Your task to perform on an android device: Go to accessibility settings Image 0: 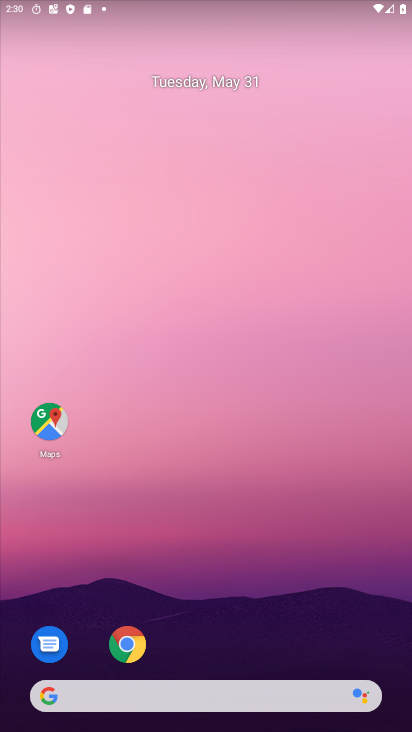
Step 0: click (136, 649)
Your task to perform on an android device: Go to accessibility settings Image 1: 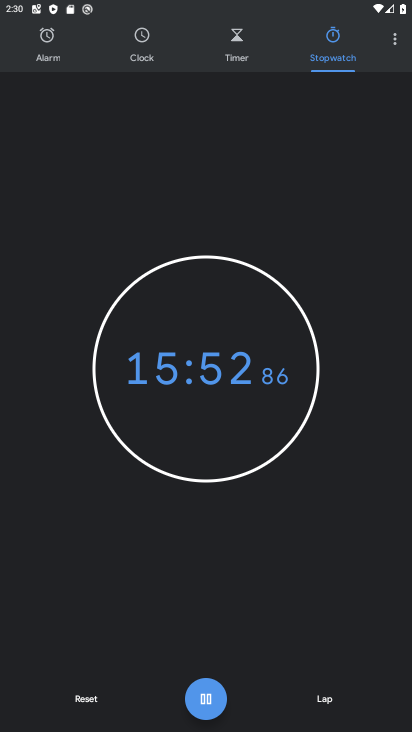
Step 1: press home button
Your task to perform on an android device: Go to accessibility settings Image 2: 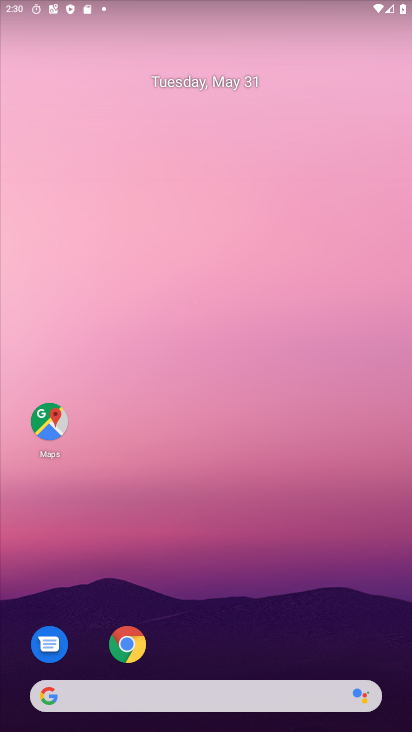
Step 2: drag from (394, 681) to (322, 129)
Your task to perform on an android device: Go to accessibility settings Image 3: 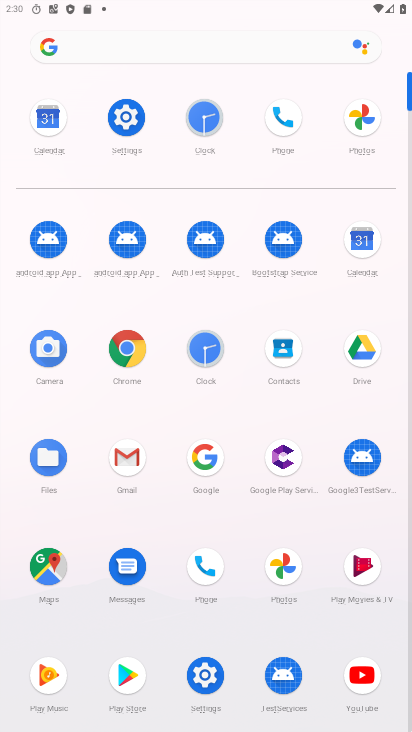
Step 3: click (115, 121)
Your task to perform on an android device: Go to accessibility settings Image 4: 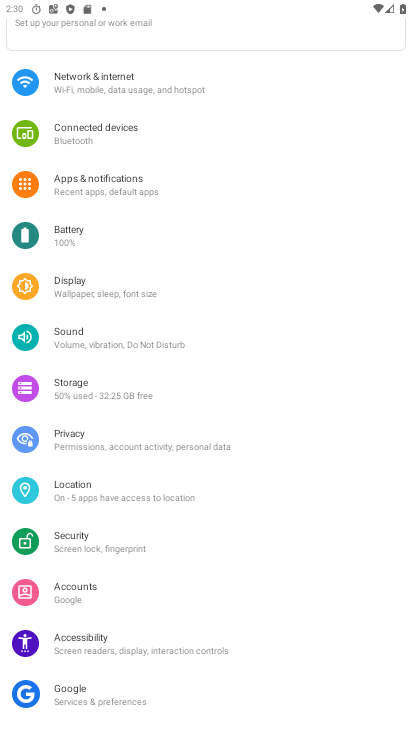
Step 4: click (93, 645)
Your task to perform on an android device: Go to accessibility settings Image 5: 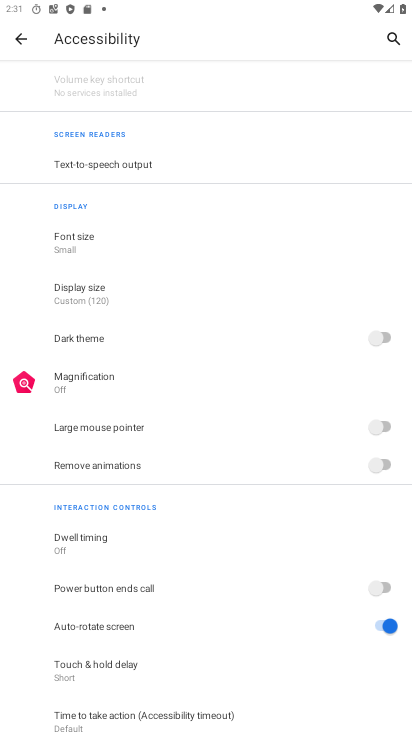
Step 5: task complete